Your task to perform on an android device: toggle wifi Image 0: 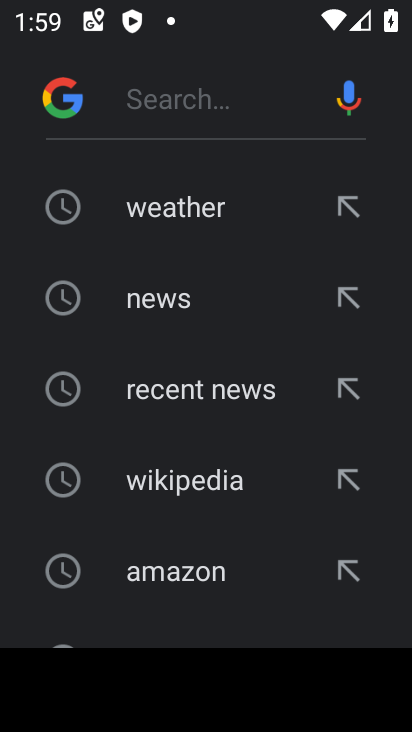
Step 0: press home button
Your task to perform on an android device: toggle wifi Image 1: 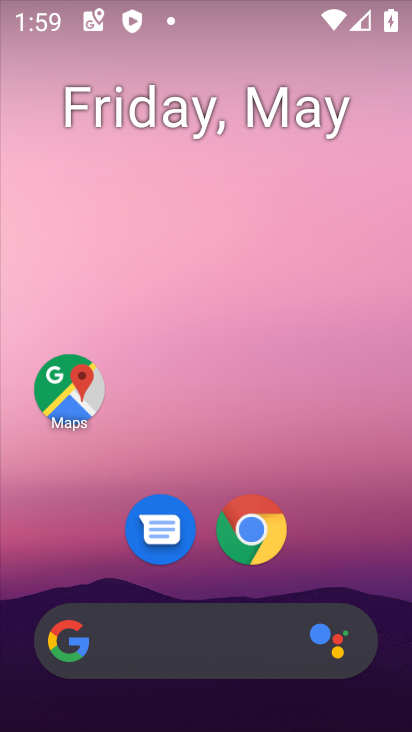
Step 1: drag from (339, 564) to (322, 84)
Your task to perform on an android device: toggle wifi Image 2: 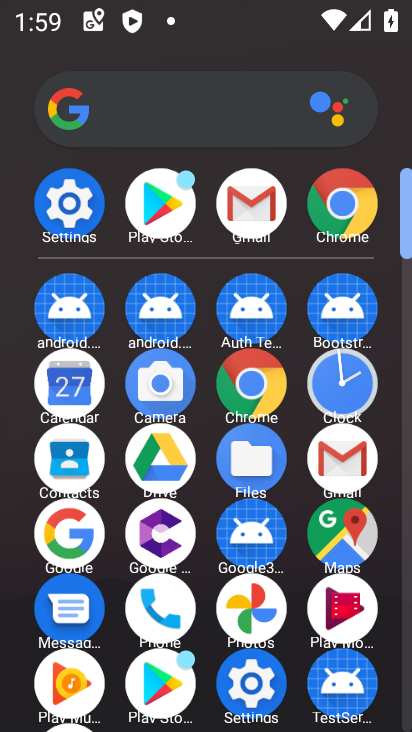
Step 2: click (76, 238)
Your task to perform on an android device: toggle wifi Image 3: 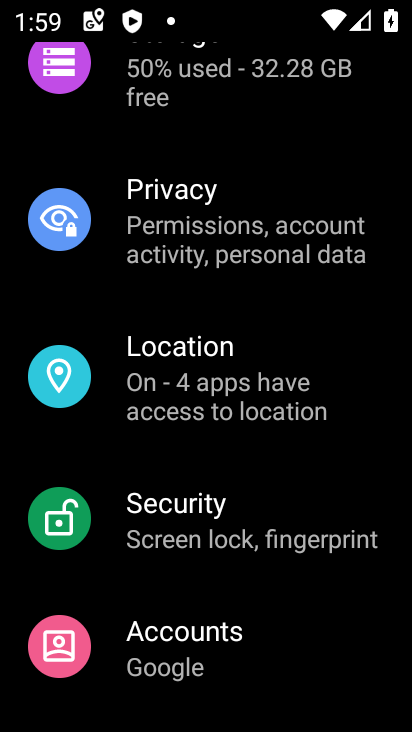
Step 3: drag from (176, 245) to (215, 334)
Your task to perform on an android device: toggle wifi Image 4: 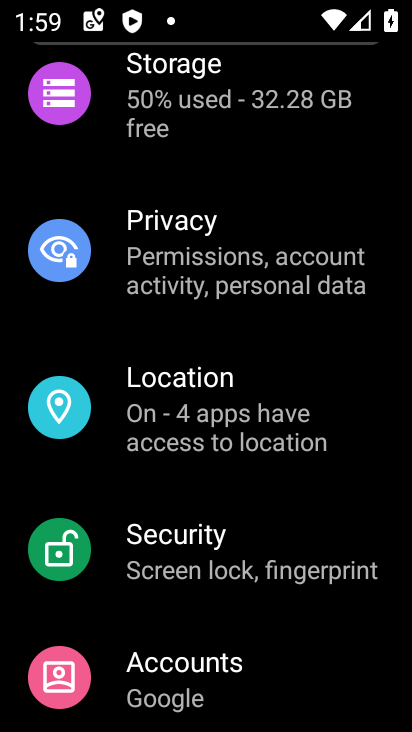
Step 4: drag from (248, 181) to (382, 496)
Your task to perform on an android device: toggle wifi Image 5: 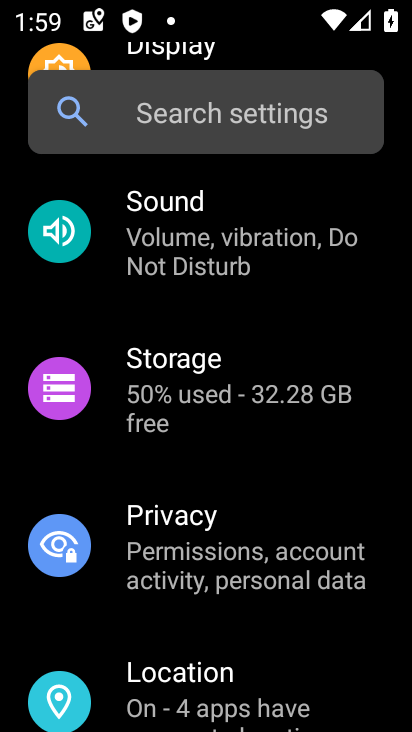
Step 5: drag from (262, 319) to (365, 570)
Your task to perform on an android device: toggle wifi Image 6: 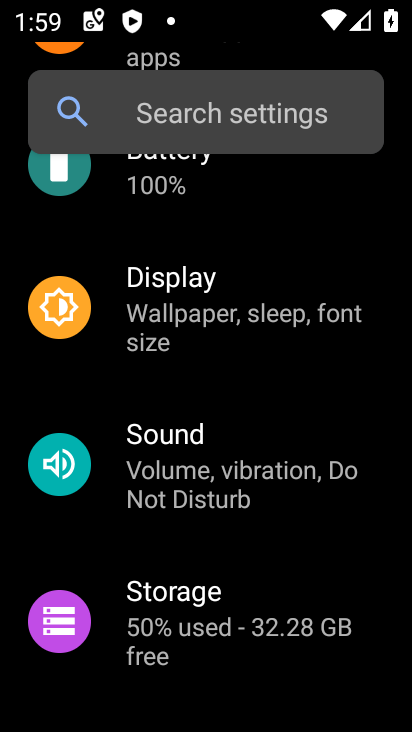
Step 6: drag from (229, 222) to (383, 507)
Your task to perform on an android device: toggle wifi Image 7: 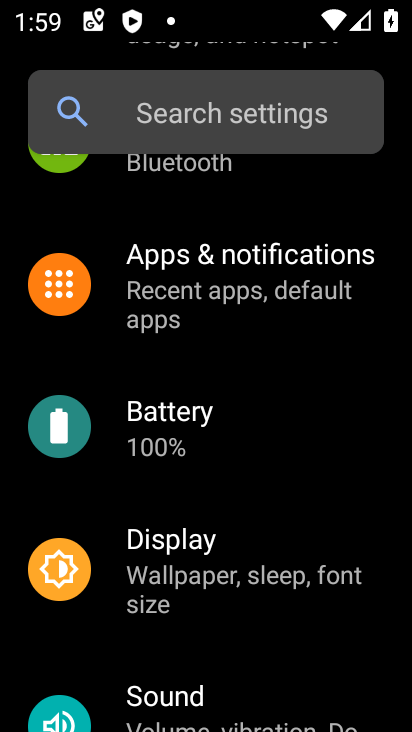
Step 7: drag from (247, 214) to (363, 453)
Your task to perform on an android device: toggle wifi Image 8: 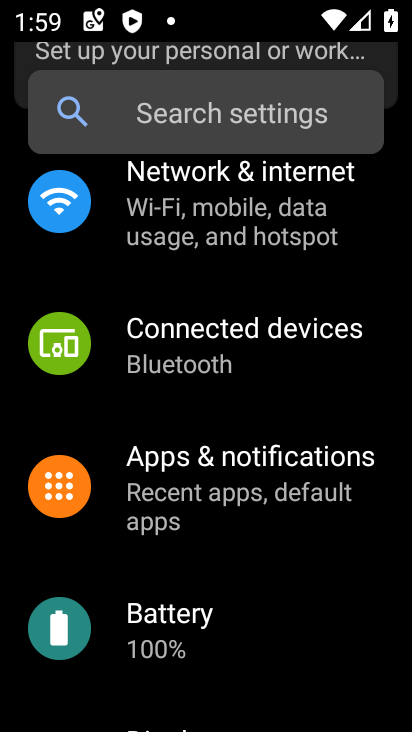
Step 8: click (265, 250)
Your task to perform on an android device: toggle wifi Image 9: 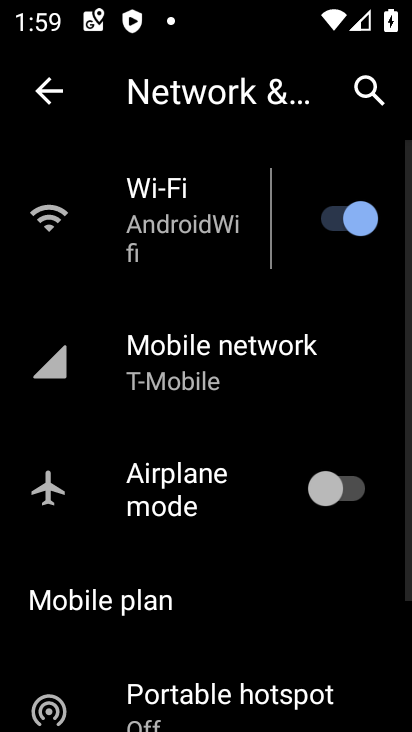
Step 9: click (304, 246)
Your task to perform on an android device: toggle wifi Image 10: 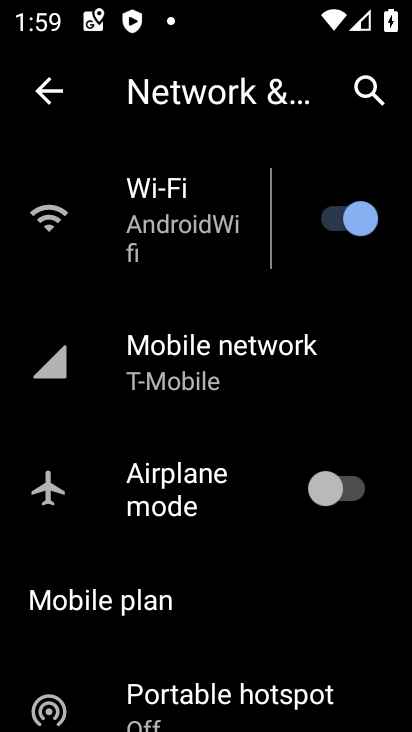
Step 10: click (304, 246)
Your task to perform on an android device: toggle wifi Image 11: 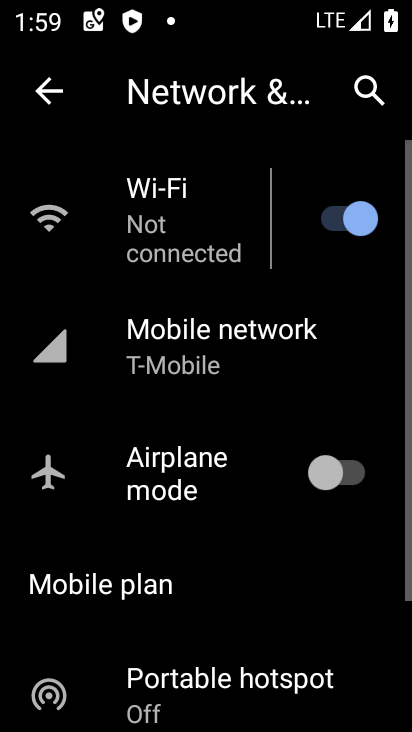
Step 11: task complete